Your task to perform on an android device: Open the Play Movies app and select the watchlist tab. Image 0: 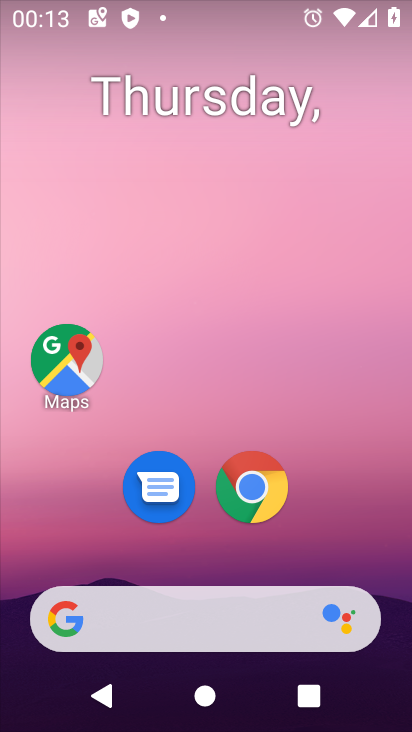
Step 0: drag from (353, 572) to (408, 438)
Your task to perform on an android device: Open the Play Movies app and select the watchlist tab. Image 1: 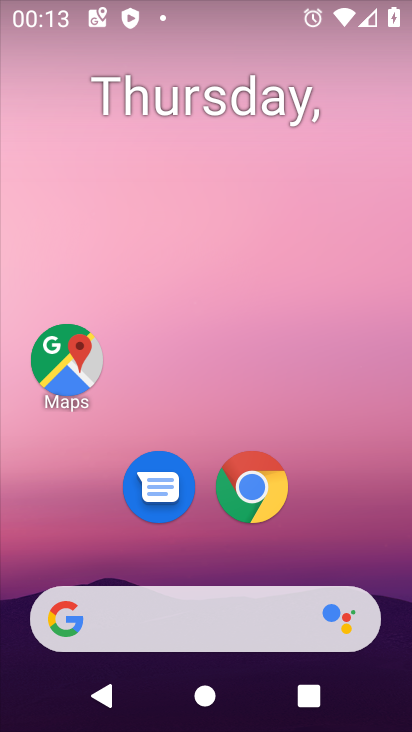
Step 1: drag from (386, 572) to (341, 726)
Your task to perform on an android device: Open the Play Movies app and select the watchlist tab. Image 2: 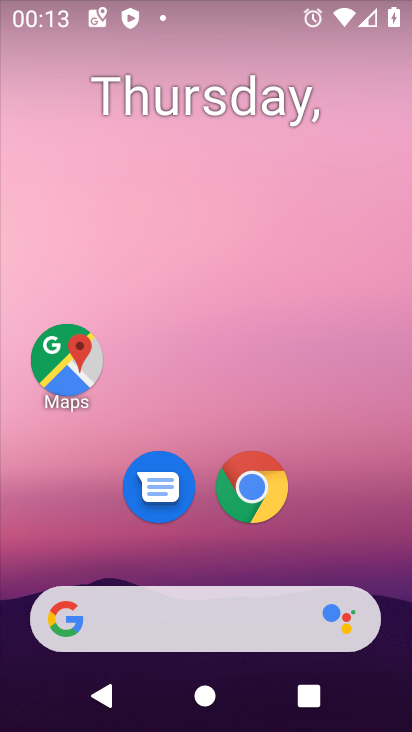
Step 2: click (340, 643)
Your task to perform on an android device: Open the Play Movies app and select the watchlist tab. Image 3: 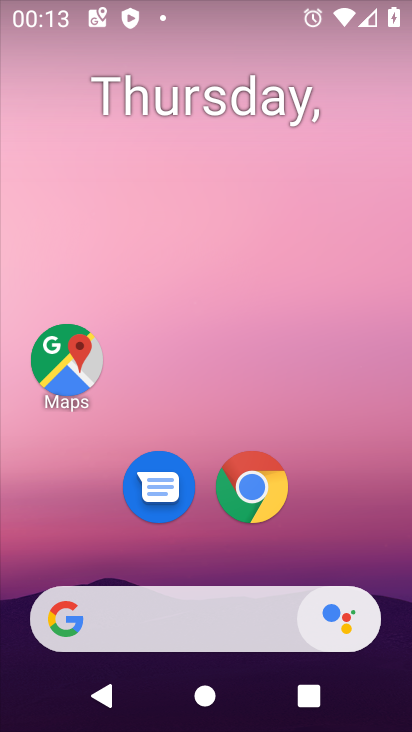
Step 3: drag from (340, 643) to (344, 134)
Your task to perform on an android device: Open the Play Movies app and select the watchlist tab. Image 4: 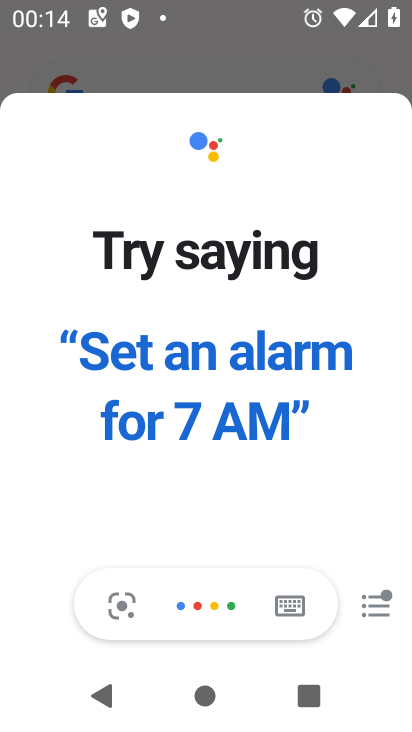
Step 4: drag from (384, 576) to (355, 337)
Your task to perform on an android device: Open the Play Movies app and select the watchlist tab. Image 5: 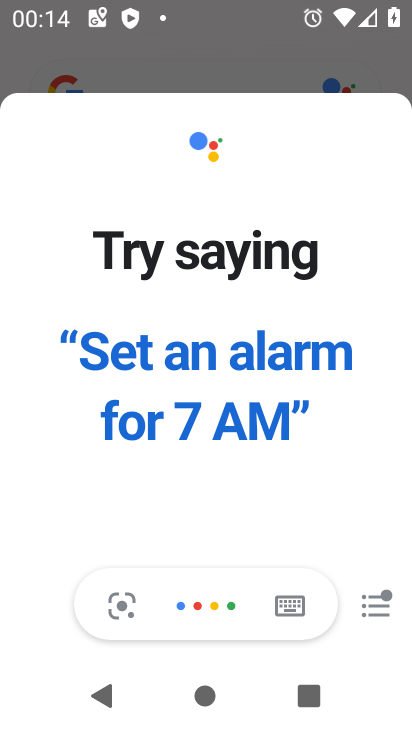
Step 5: click (368, 60)
Your task to perform on an android device: Open the Play Movies app and select the watchlist tab. Image 6: 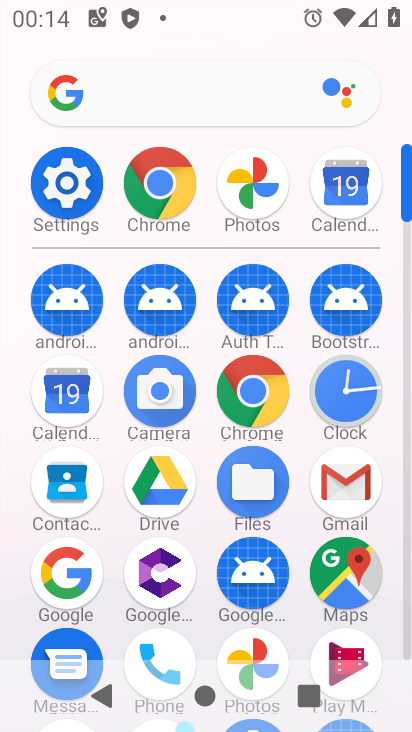
Step 6: click (408, 591)
Your task to perform on an android device: Open the Play Movies app and select the watchlist tab. Image 7: 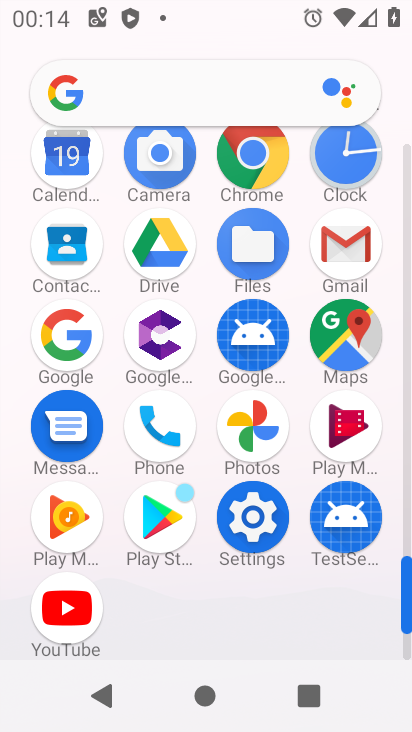
Step 7: click (347, 433)
Your task to perform on an android device: Open the Play Movies app and select the watchlist tab. Image 8: 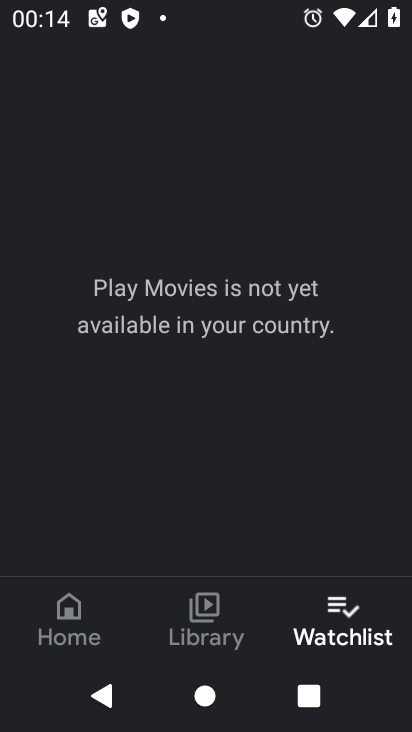
Step 8: task complete